Your task to perform on an android device: What's on my calendar tomorrow? Image 0: 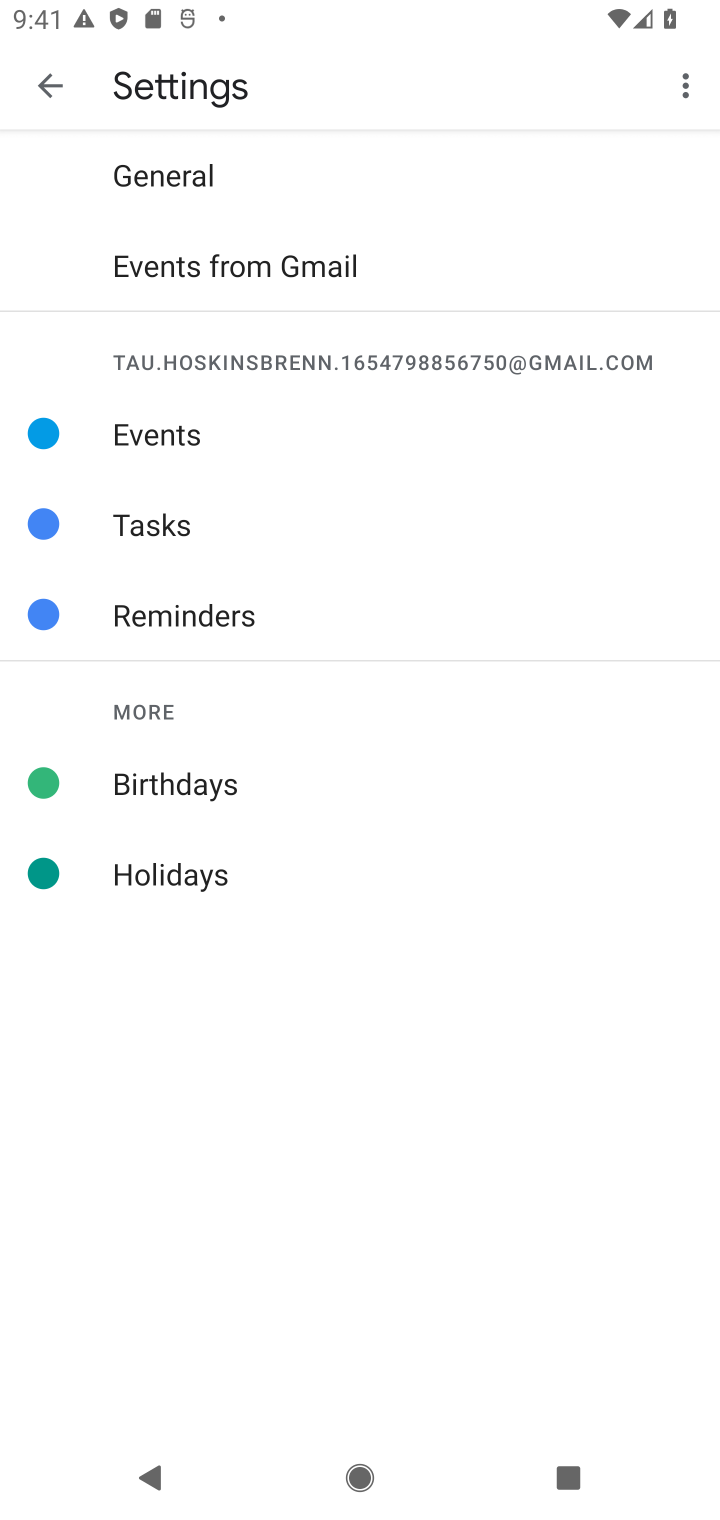
Step 0: drag from (470, 859) to (618, 499)
Your task to perform on an android device: What's on my calendar tomorrow? Image 1: 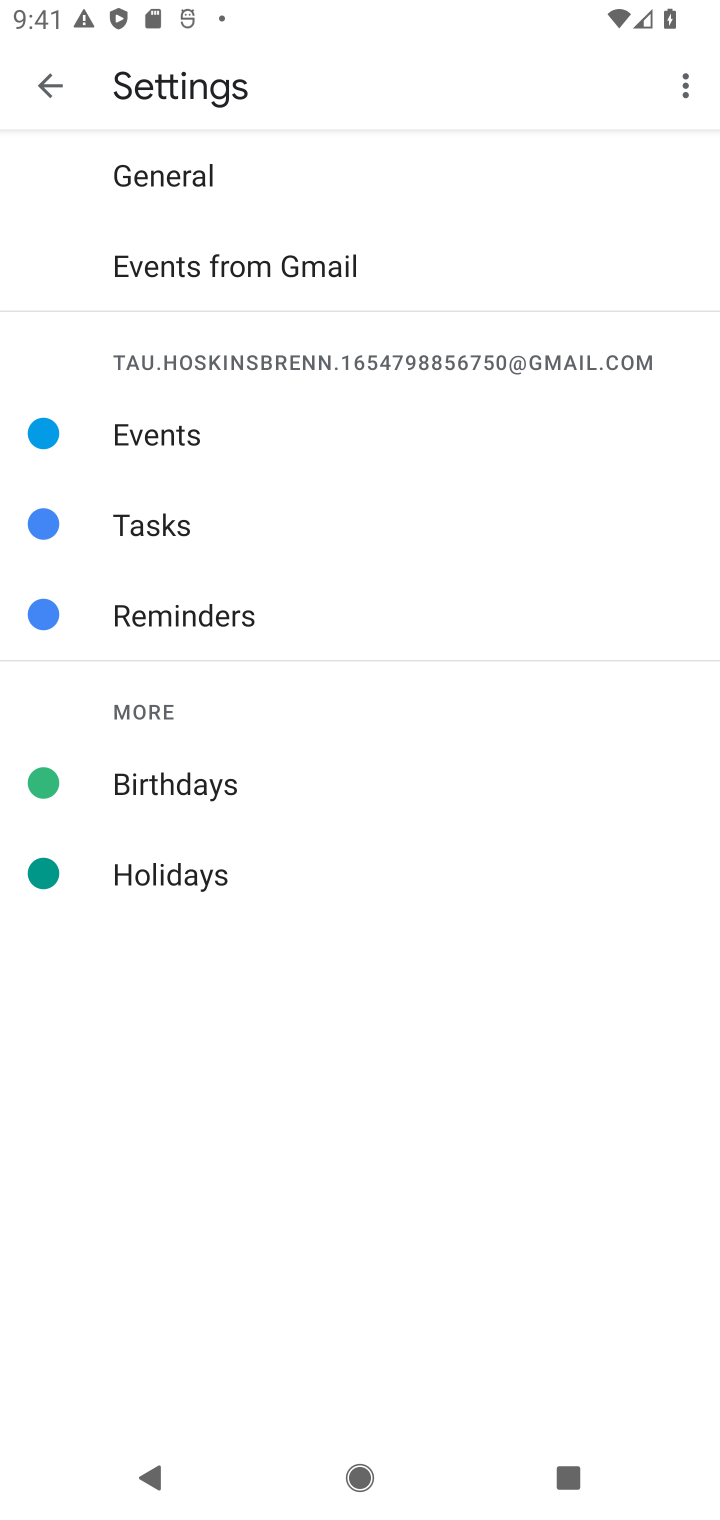
Step 1: press home button
Your task to perform on an android device: What's on my calendar tomorrow? Image 2: 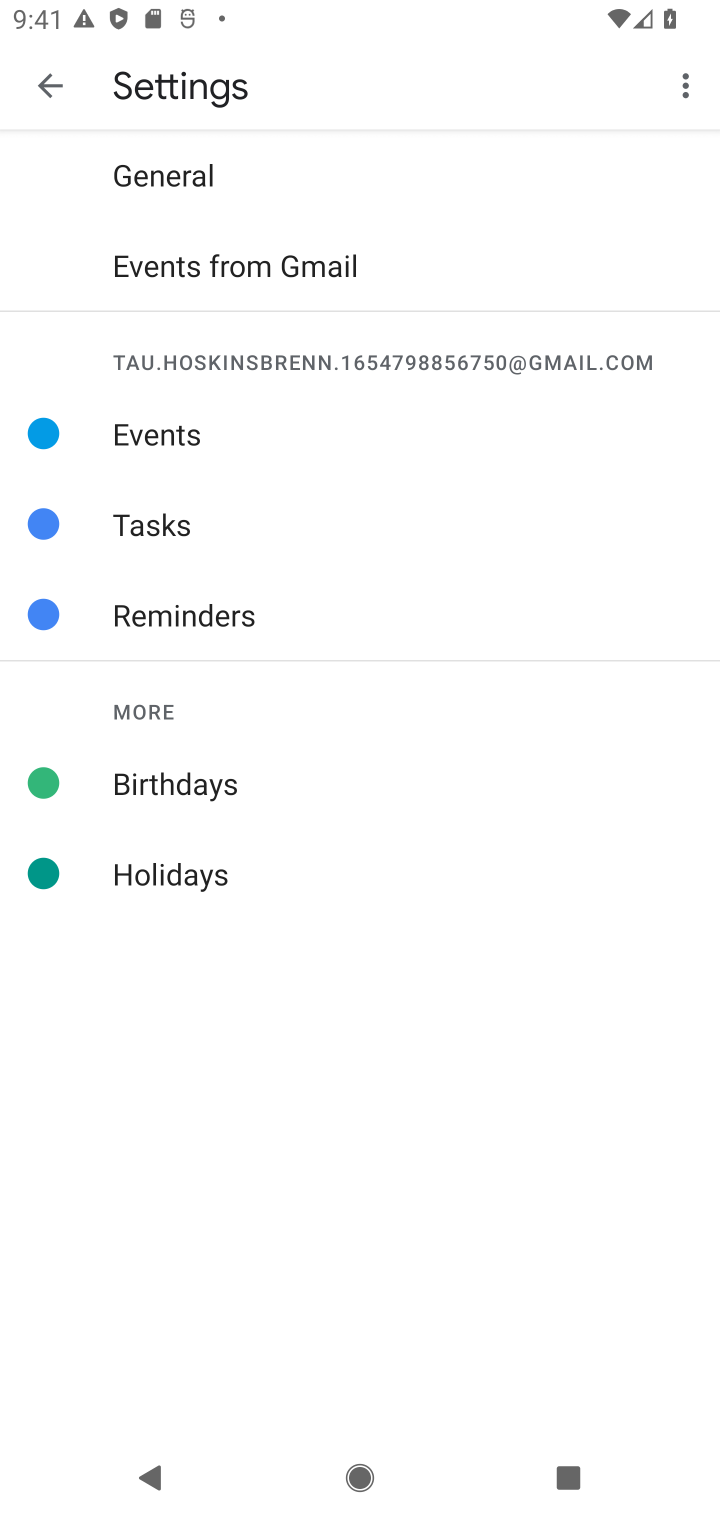
Step 2: press home button
Your task to perform on an android device: What's on my calendar tomorrow? Image 3: 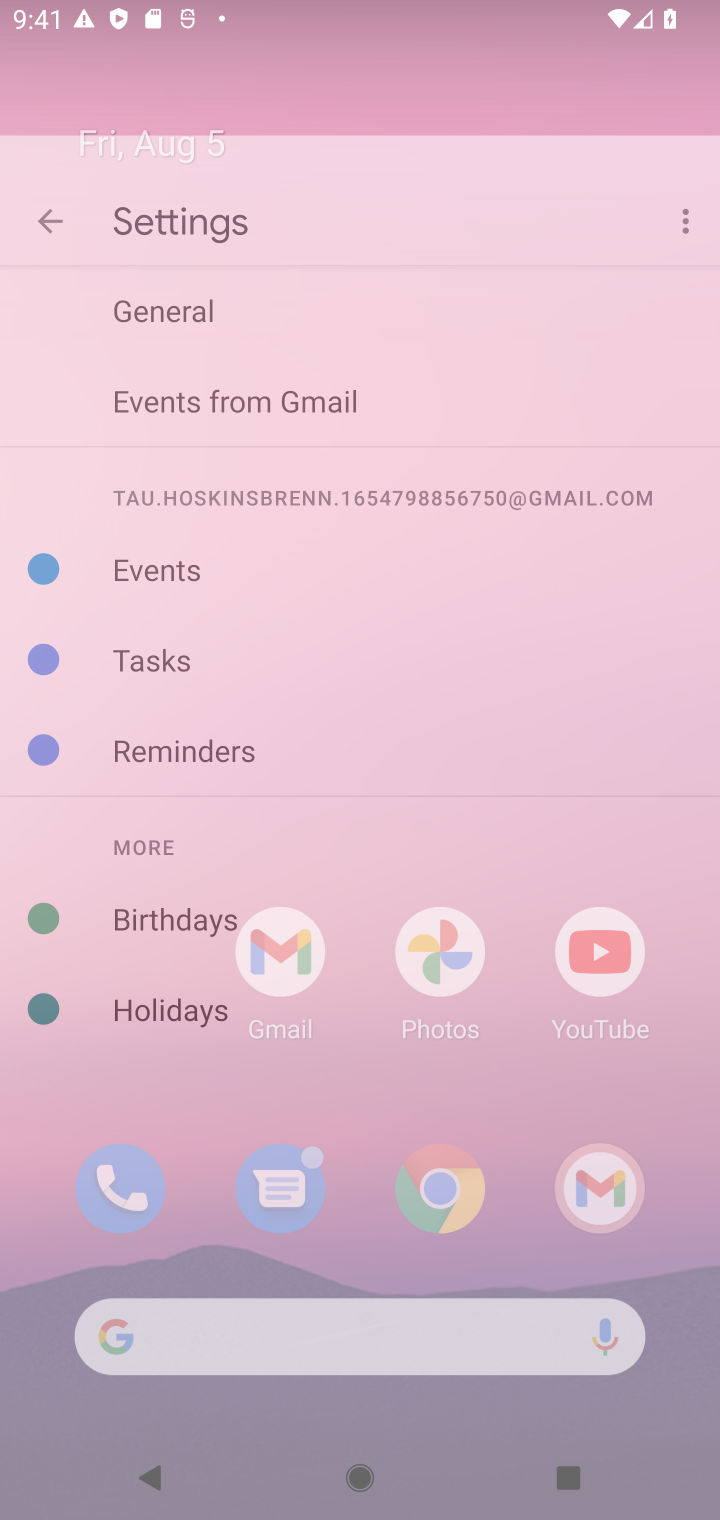
Step 3: drag from (421, 1304) to (526, 457)
Your task to perform on an android device: What's on my calendar tomorrow? Image 4: 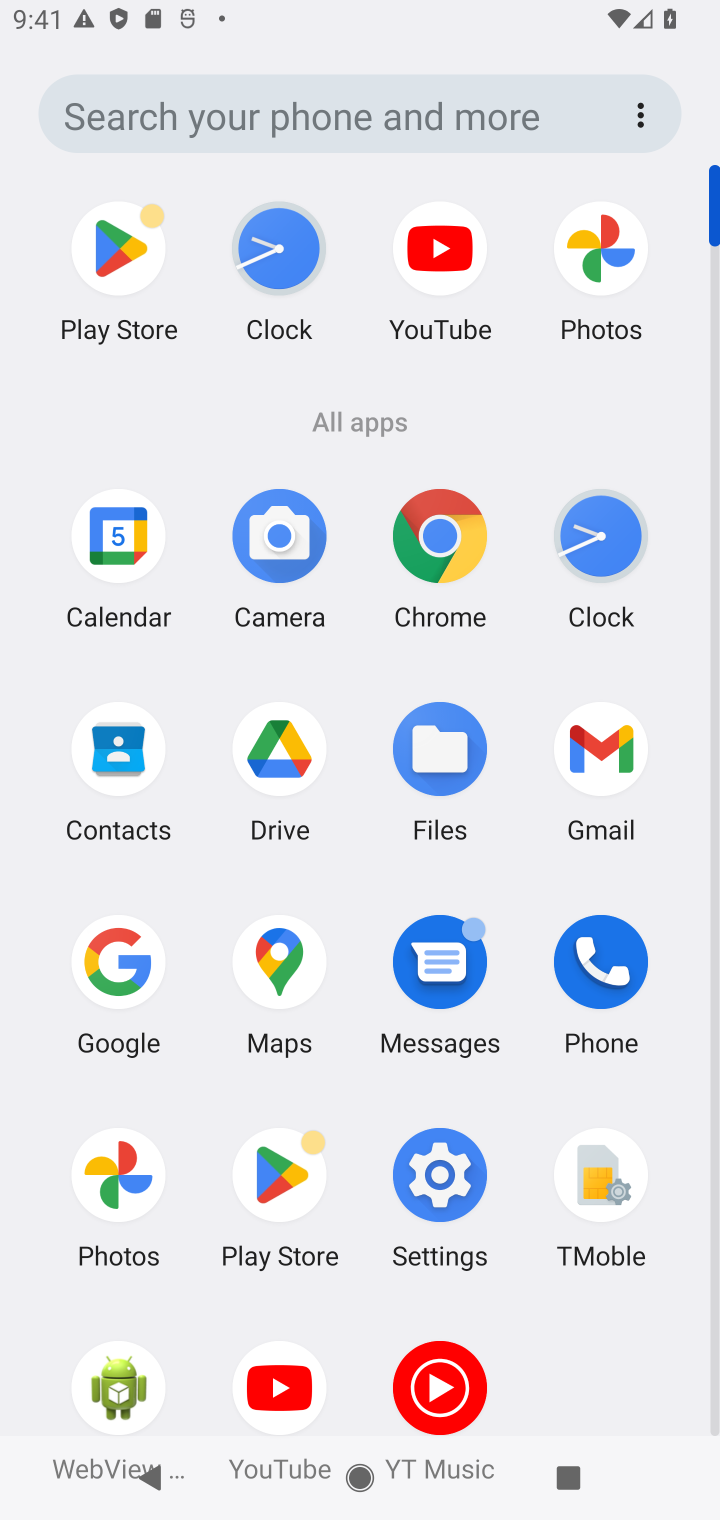
Step 4: click (105, 547)
Your task to perform on an android device: What's on my calendar tomorrow? Image 5: 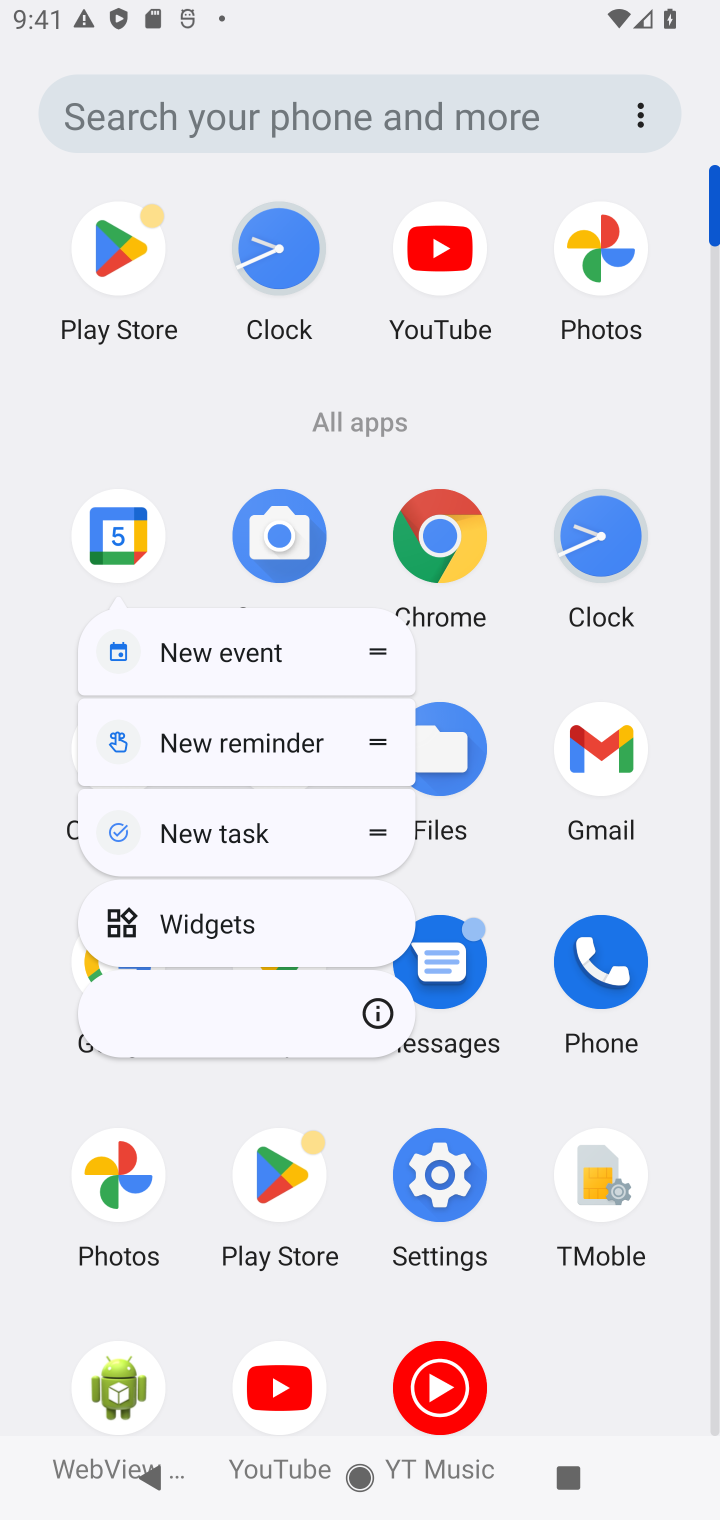
Step 5: click (370, 1012)
Your task to perform on an android device: What's on my calendar tomorrow? Image 6: 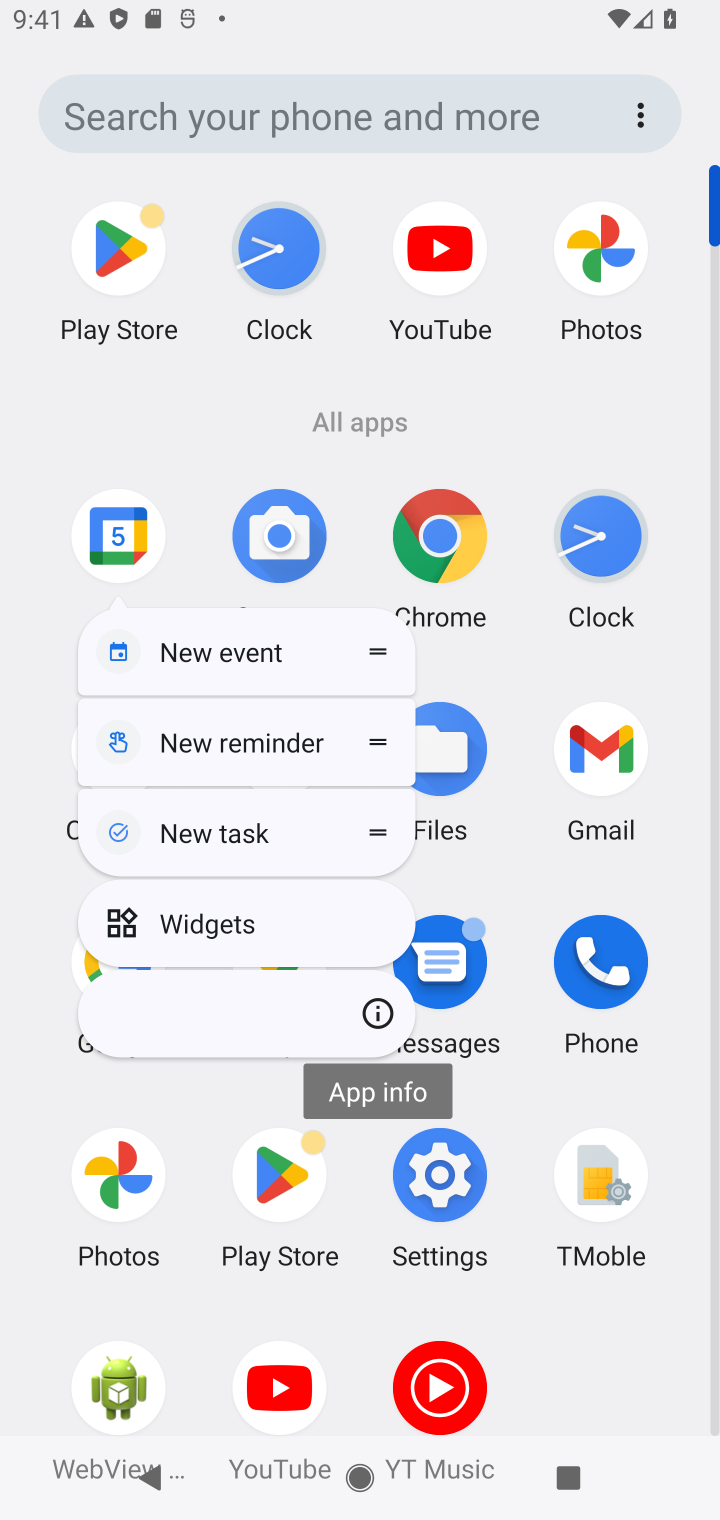
Step 6: click (370, 1012)
Your task to perform on an android device: What's on my calendar tomorrow? Image 7: 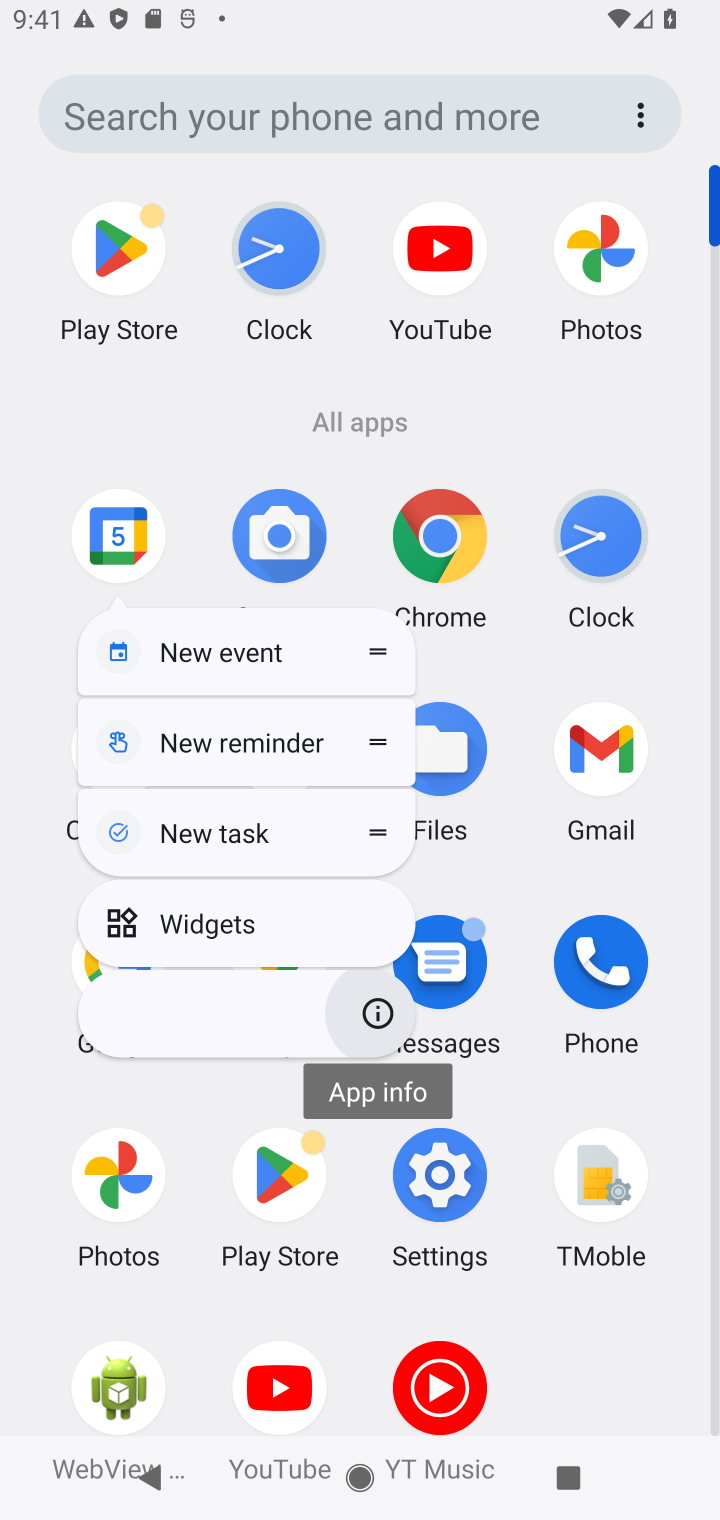
Step 7: click (370, 1012)
Your task to perform on an android device: What's on my calendar tomorrow? Image 8: 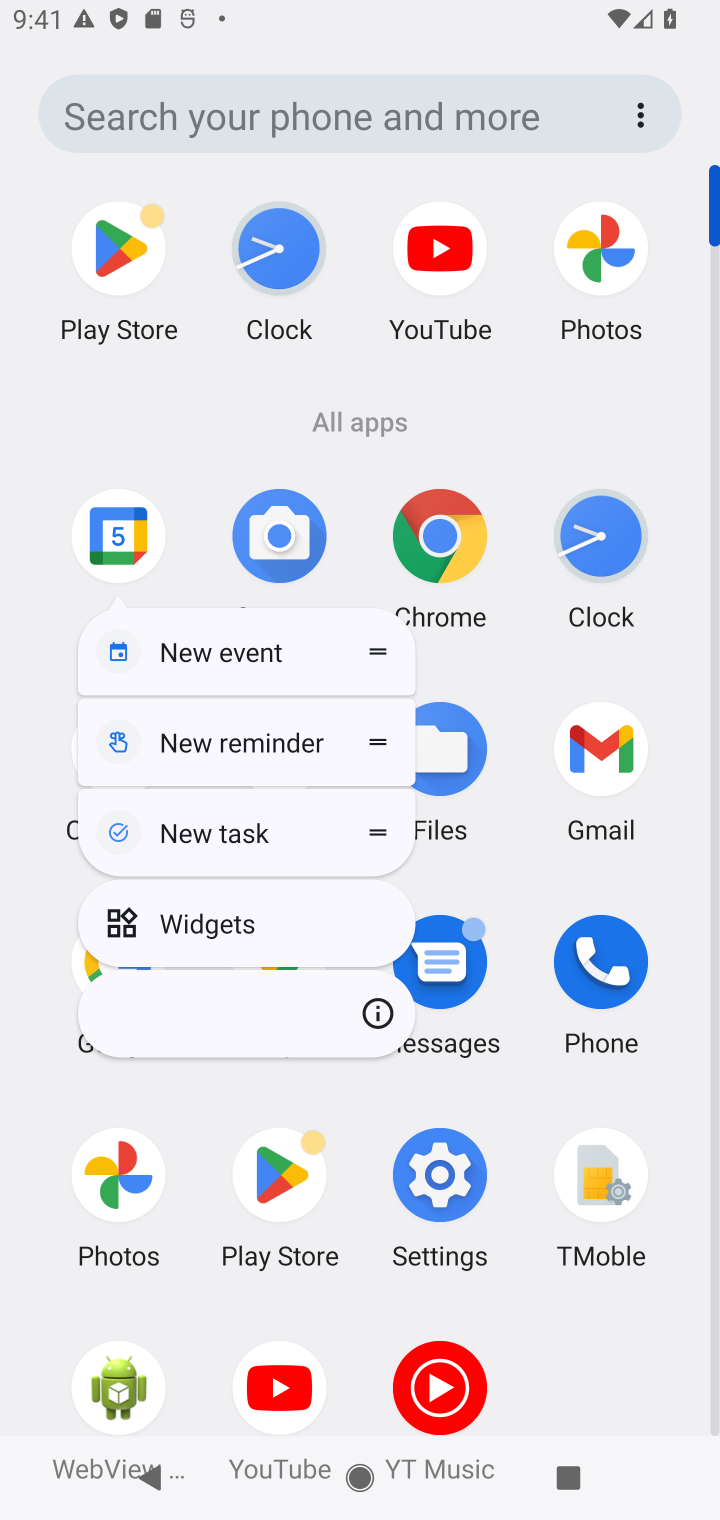
Step 8: click (373, 996)
Your task to perform on an android device: What's on my calendar tomorrow? Image 9: 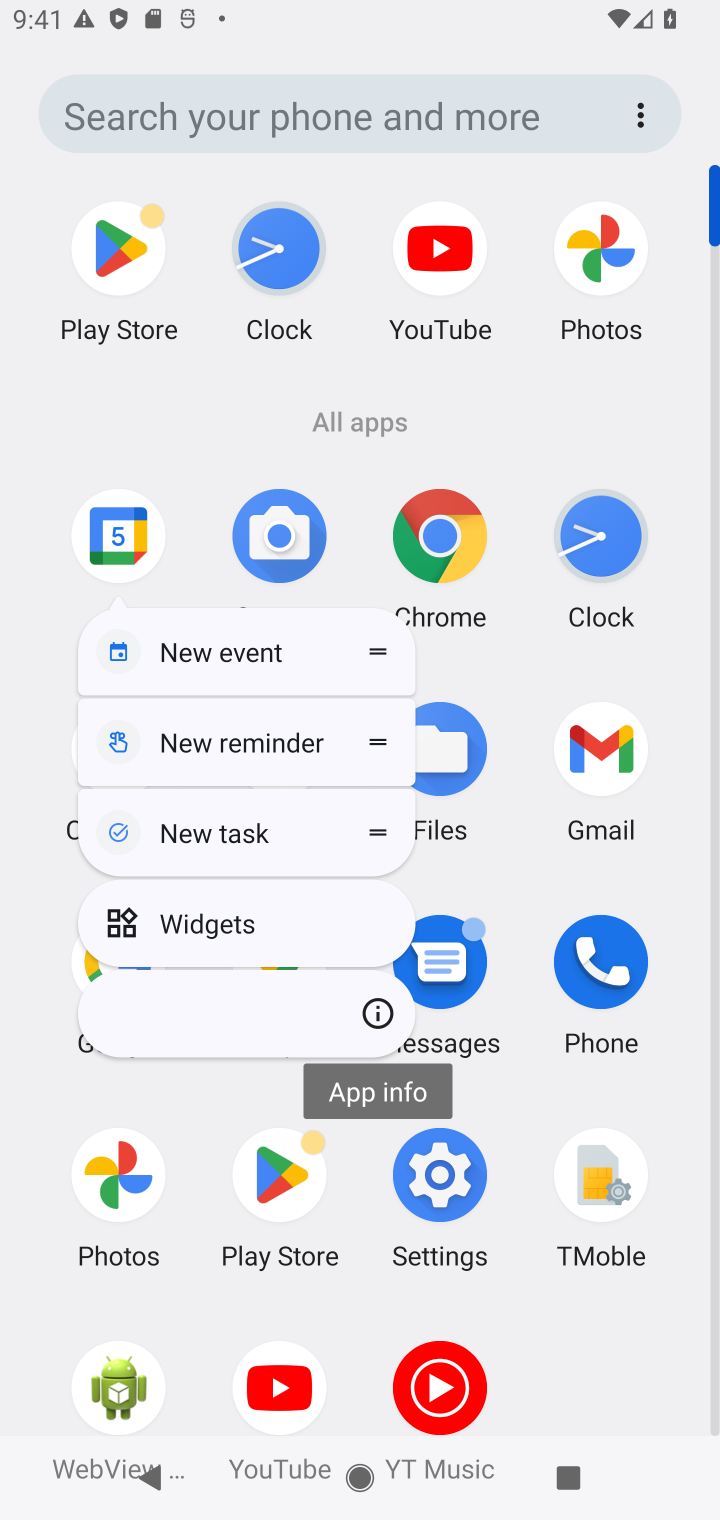
Step 9: click (373, 998)
Your task to perform on an android device: What's on my calendar tomorrow? Image 10: 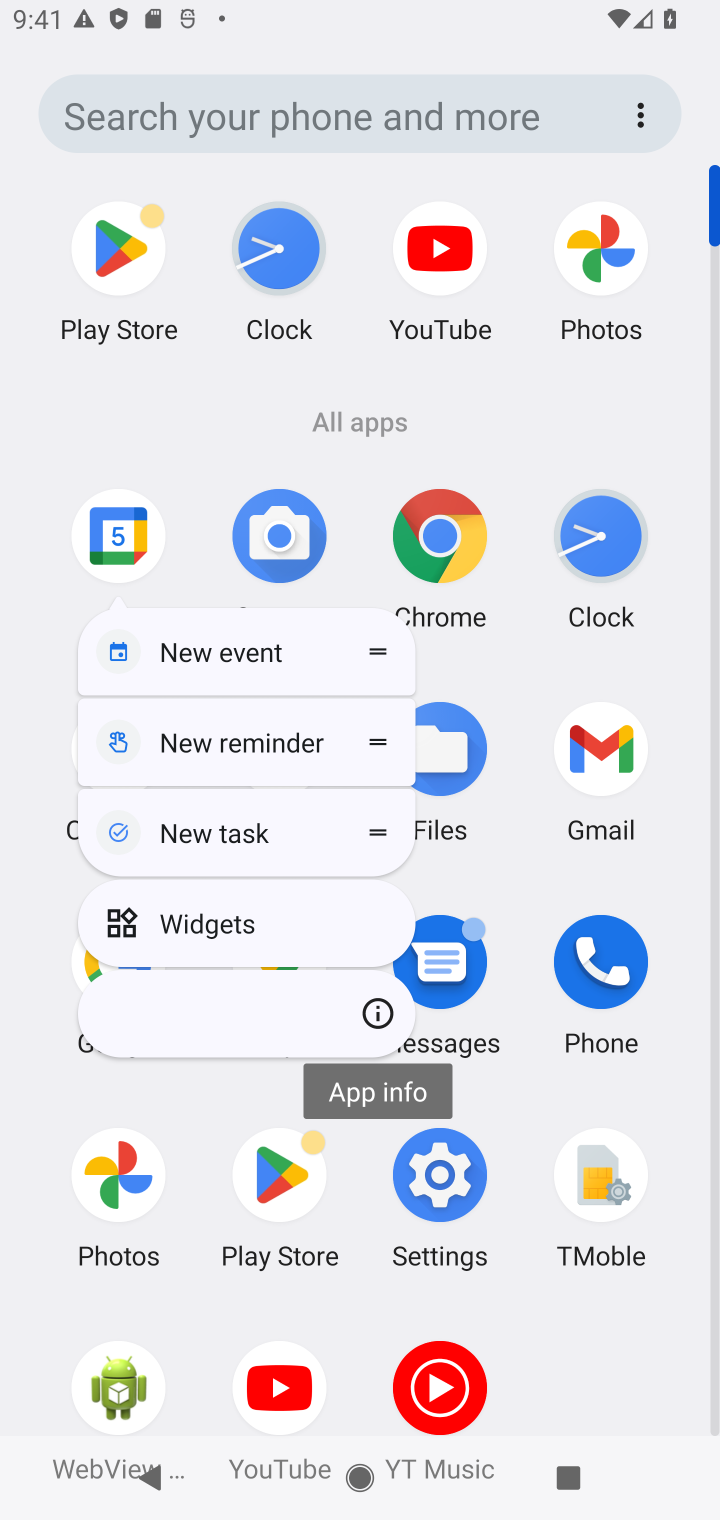
Step 10: click (373, 998)
Your task to perform on an android device: What's on my calendar tomorrow? Image 11: 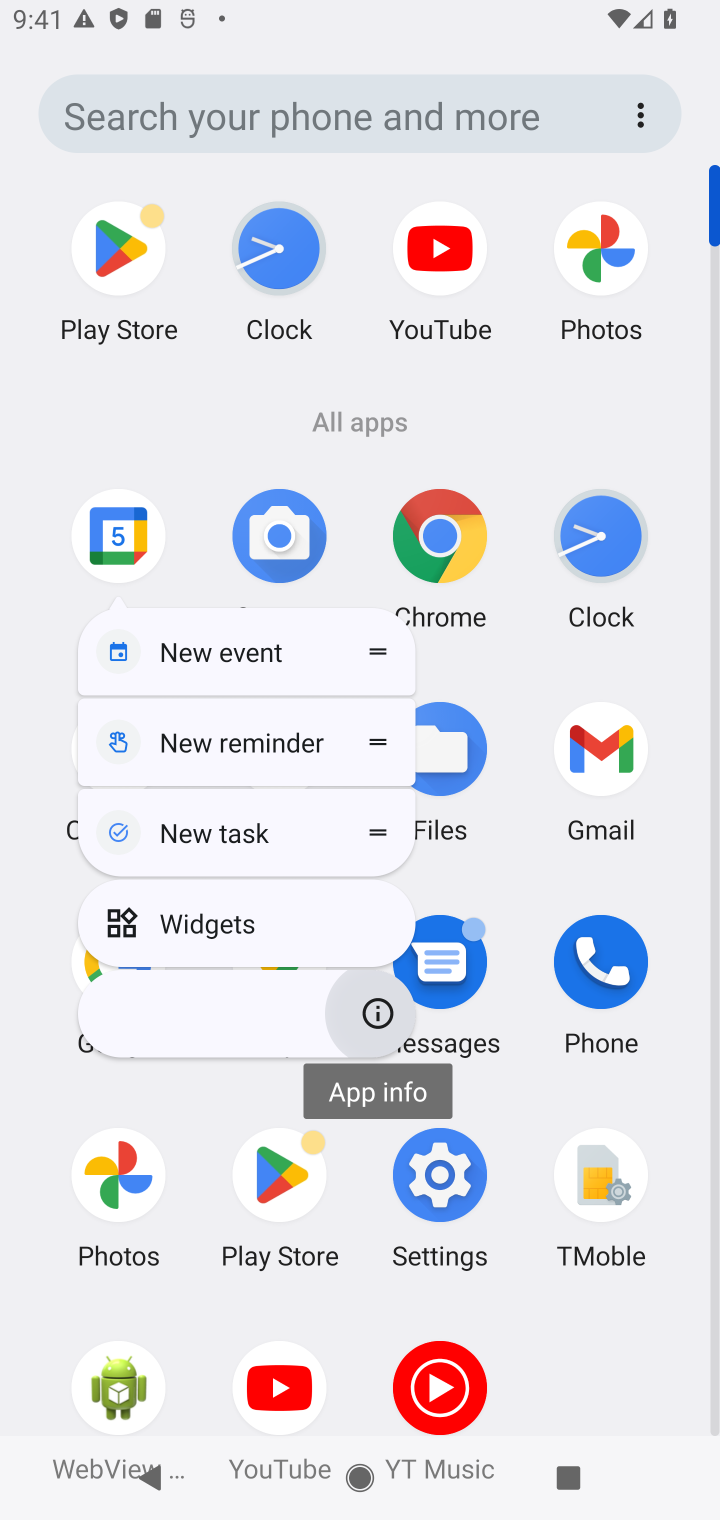
Step 11: click (112, 539)
Your task to perform on an android device: What's on my calendar tomorrow? Image 12: 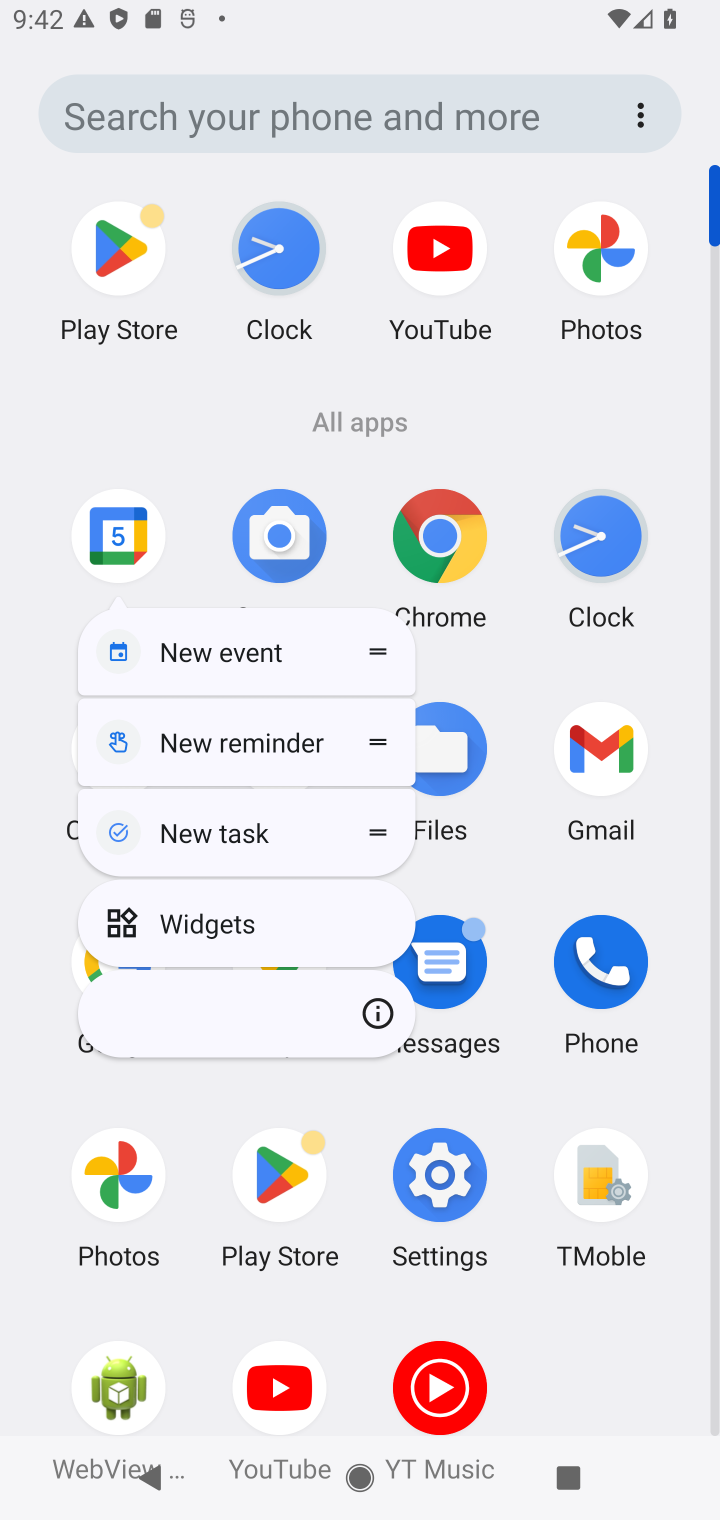
Step 12: click (112, 539)
Your task to perform on an android device: What's on my calendar tomorrow? Image 13: 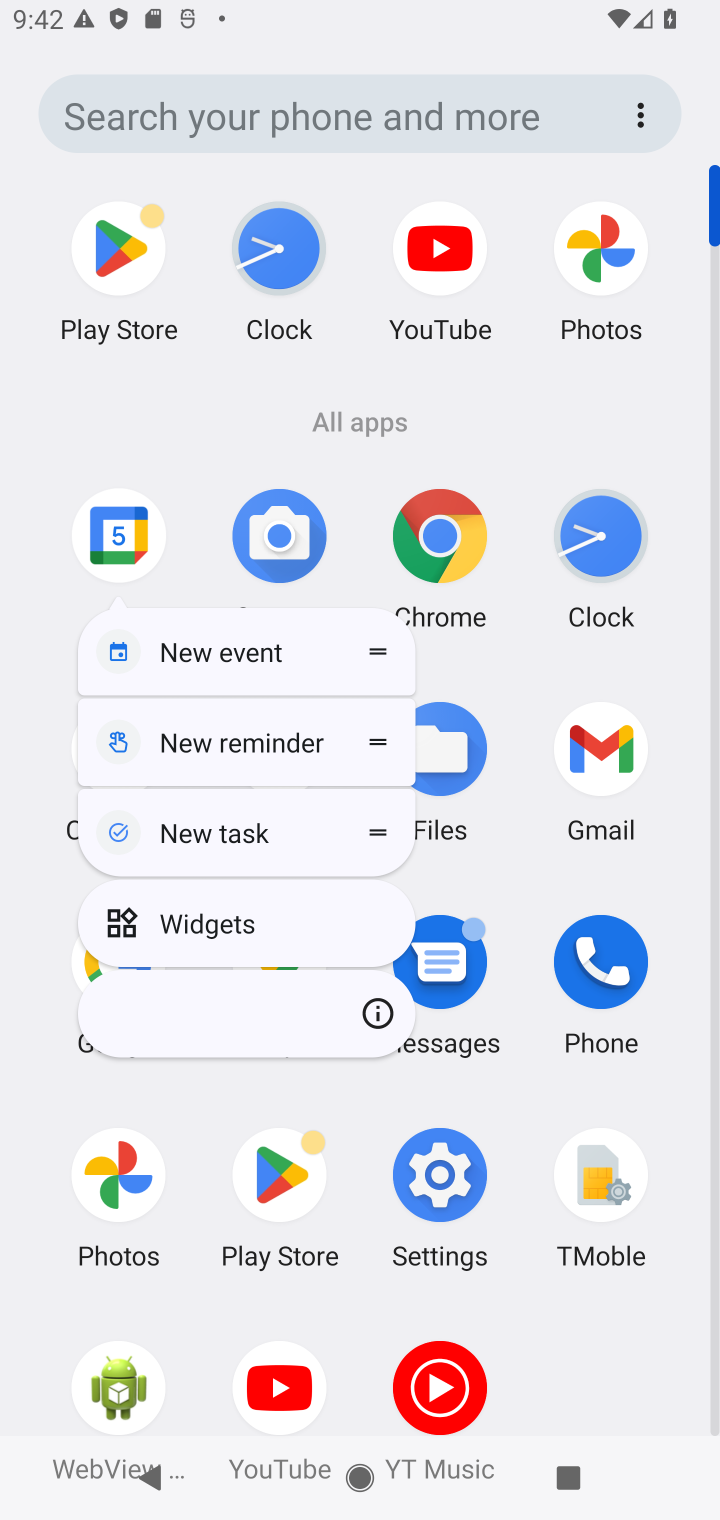
Step 13: click (125, 529)
Your task to perform on an android device: What's on my calendar tomorrow? Image 14: 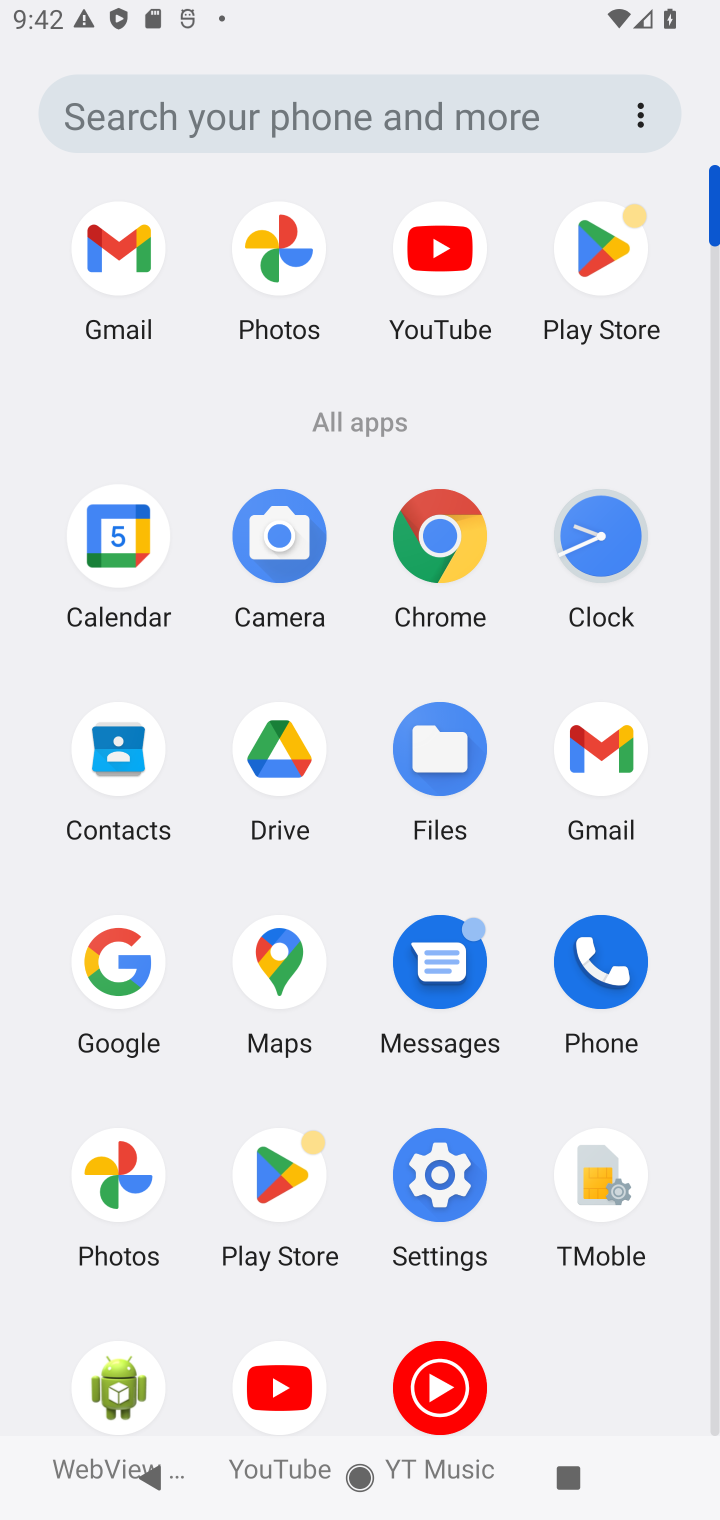
Step 14: click (125, 529)
Your task to perform on an android device: What's on my calendar tomorrow? Image 15: 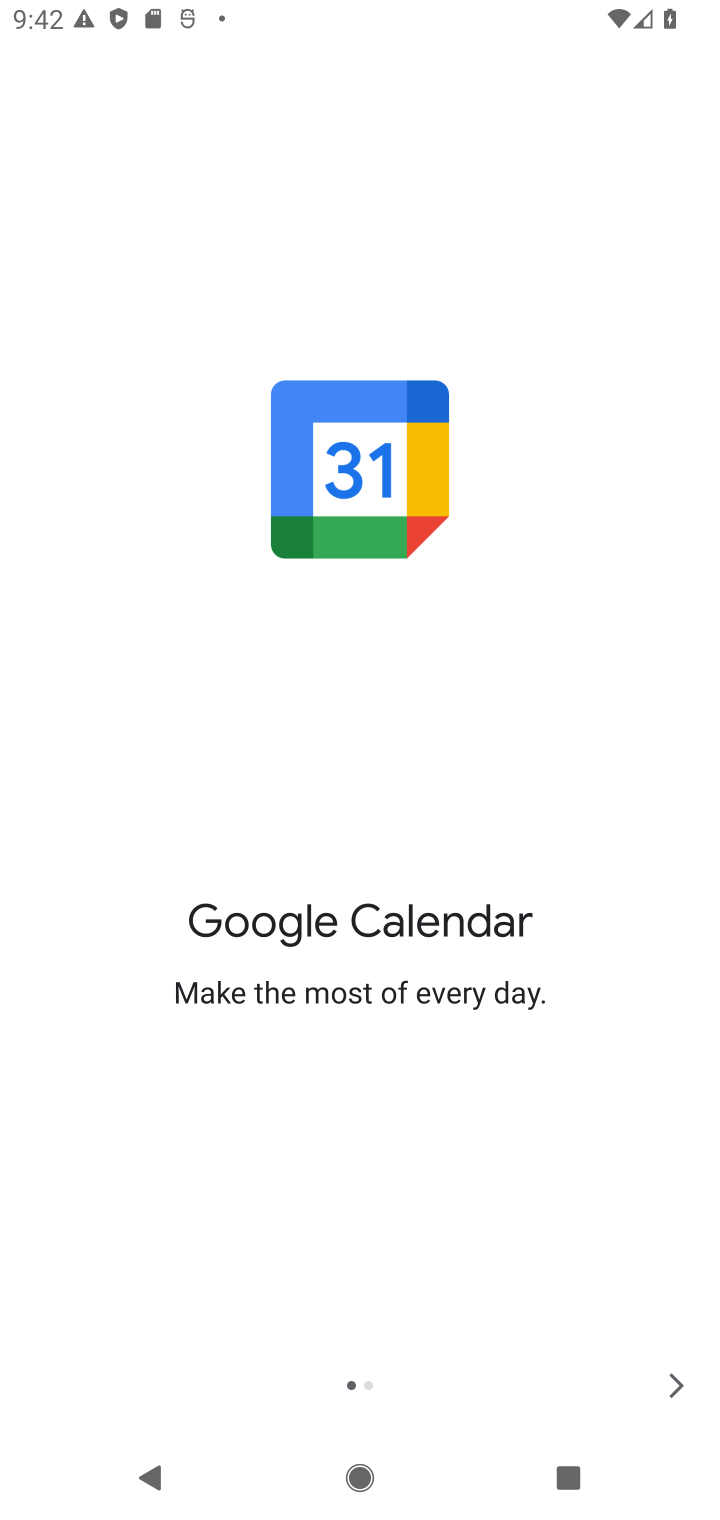
Step 15: drag from (229, 1161) to (407, 582)
Your task to perform on an android device: What's on my calendar tomorrow? Image 16: 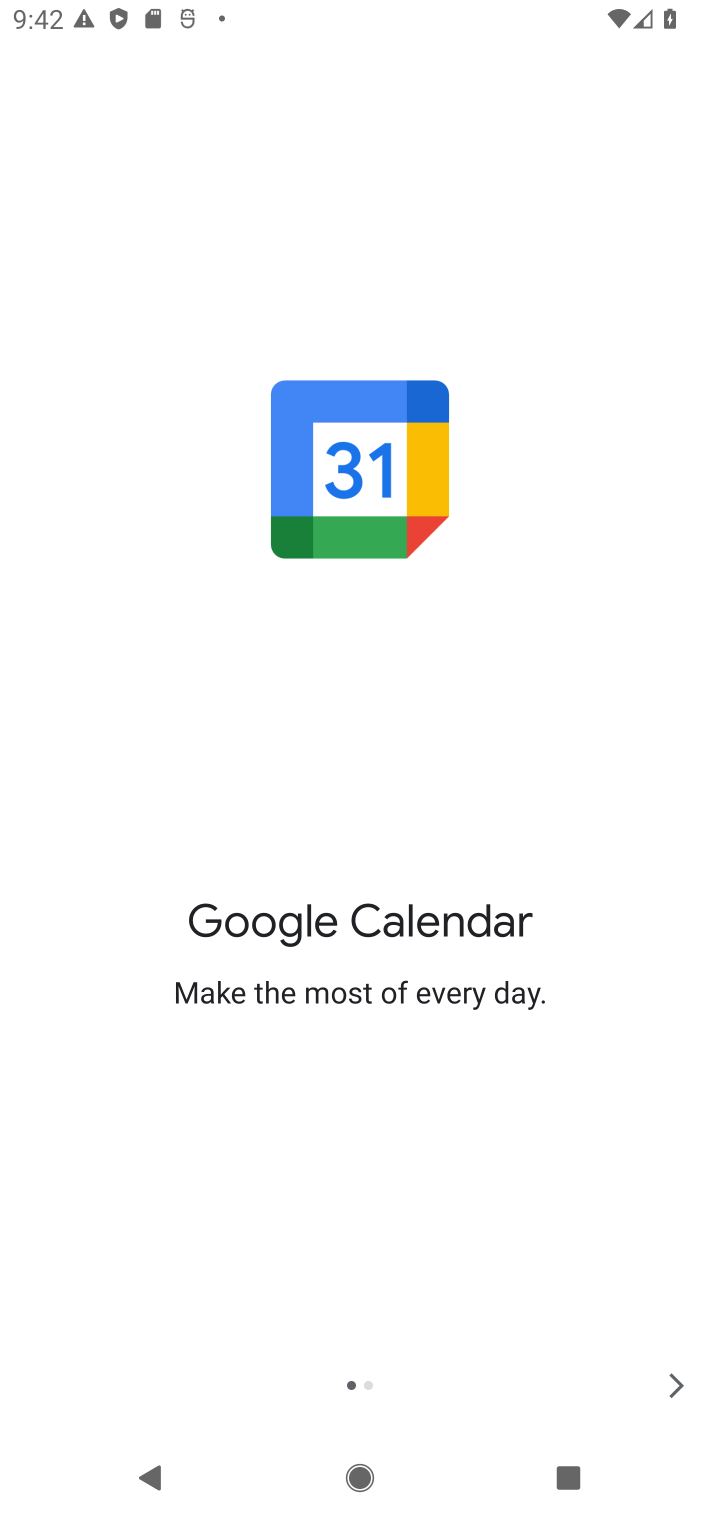
Step 16: click (681, 1389)
Your task to perform on an android device: What's on my calendar tomorrow? Image 17: 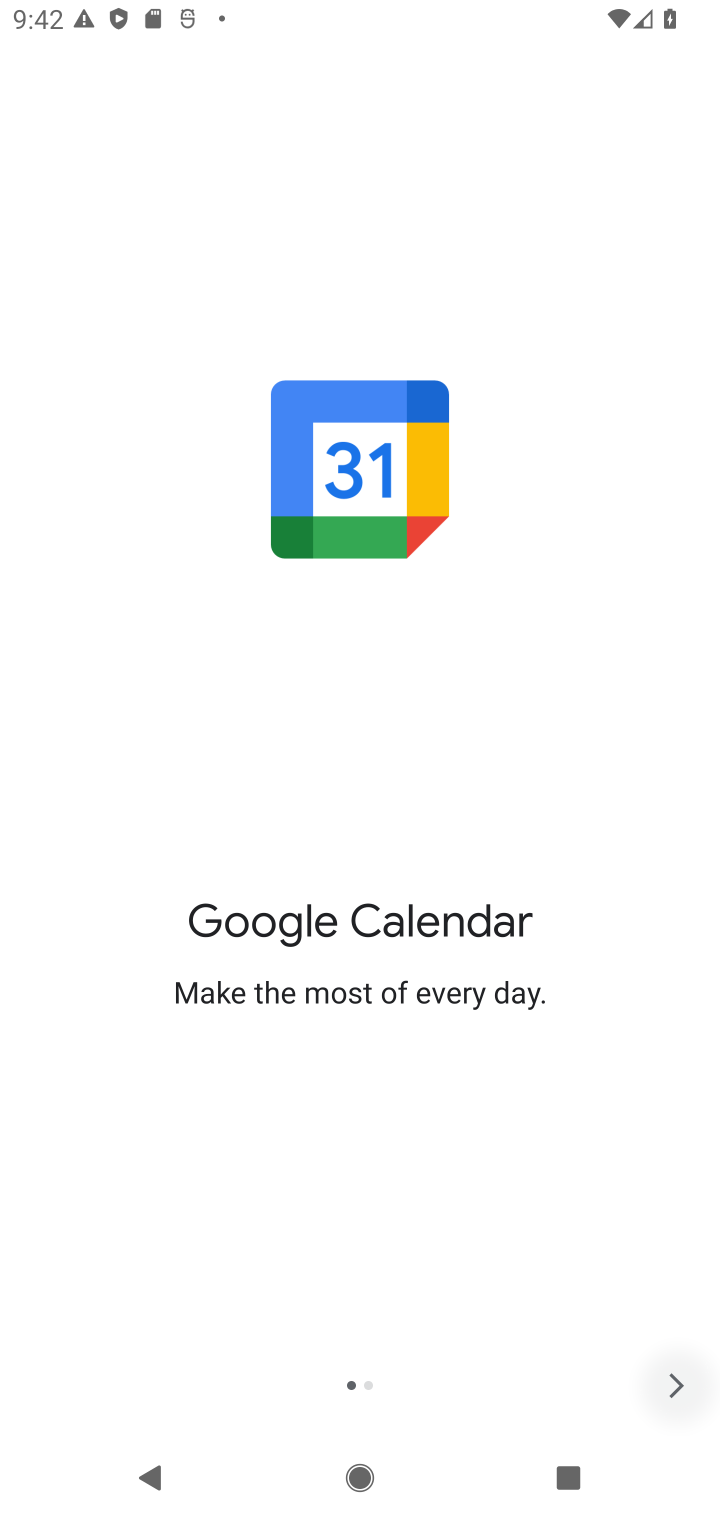
Step 17: click (681, 1389)
Your task to perform on an android device: What's on my calendar tomorrow? Image 18: 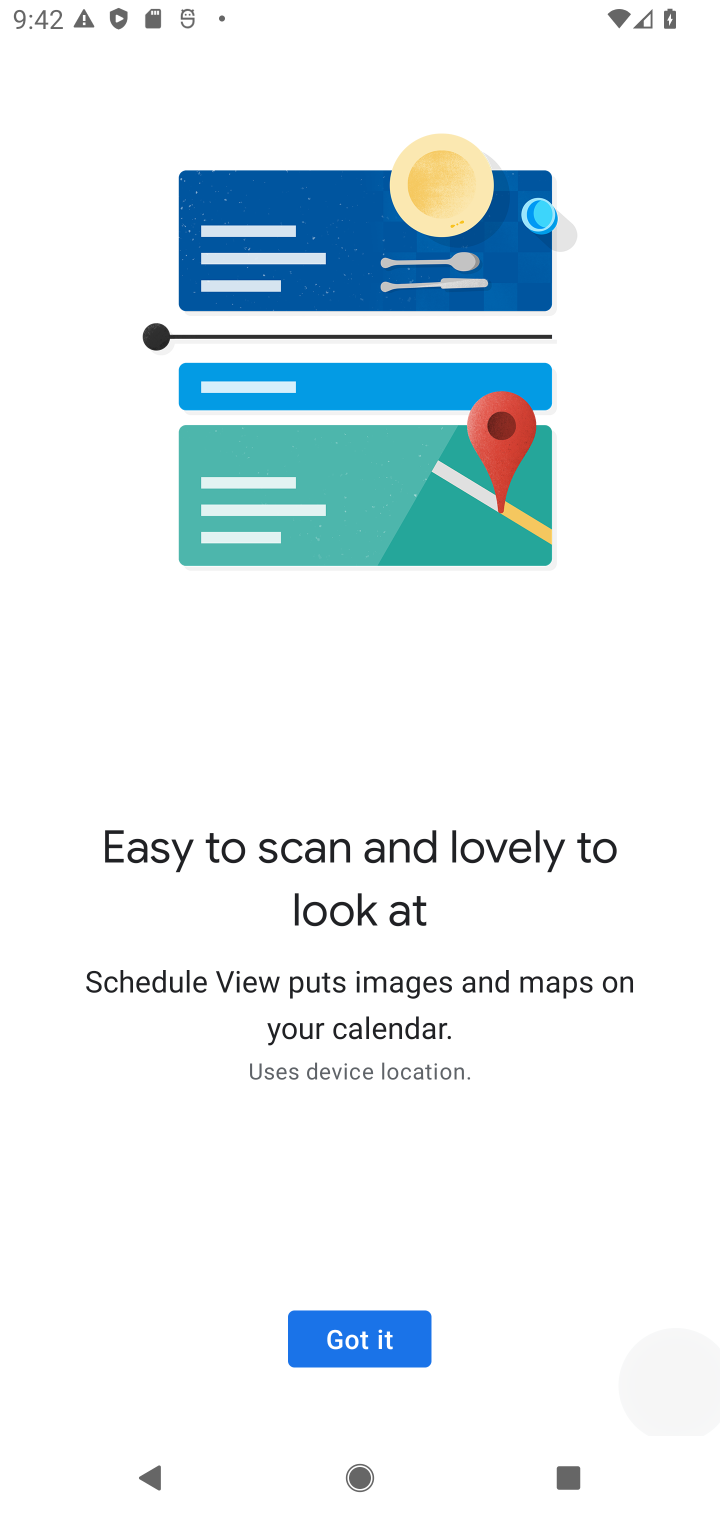
Step 18: click (681, 1389)
Your task to perform on an android device: What's on my calendar tomorrow? Image 19: 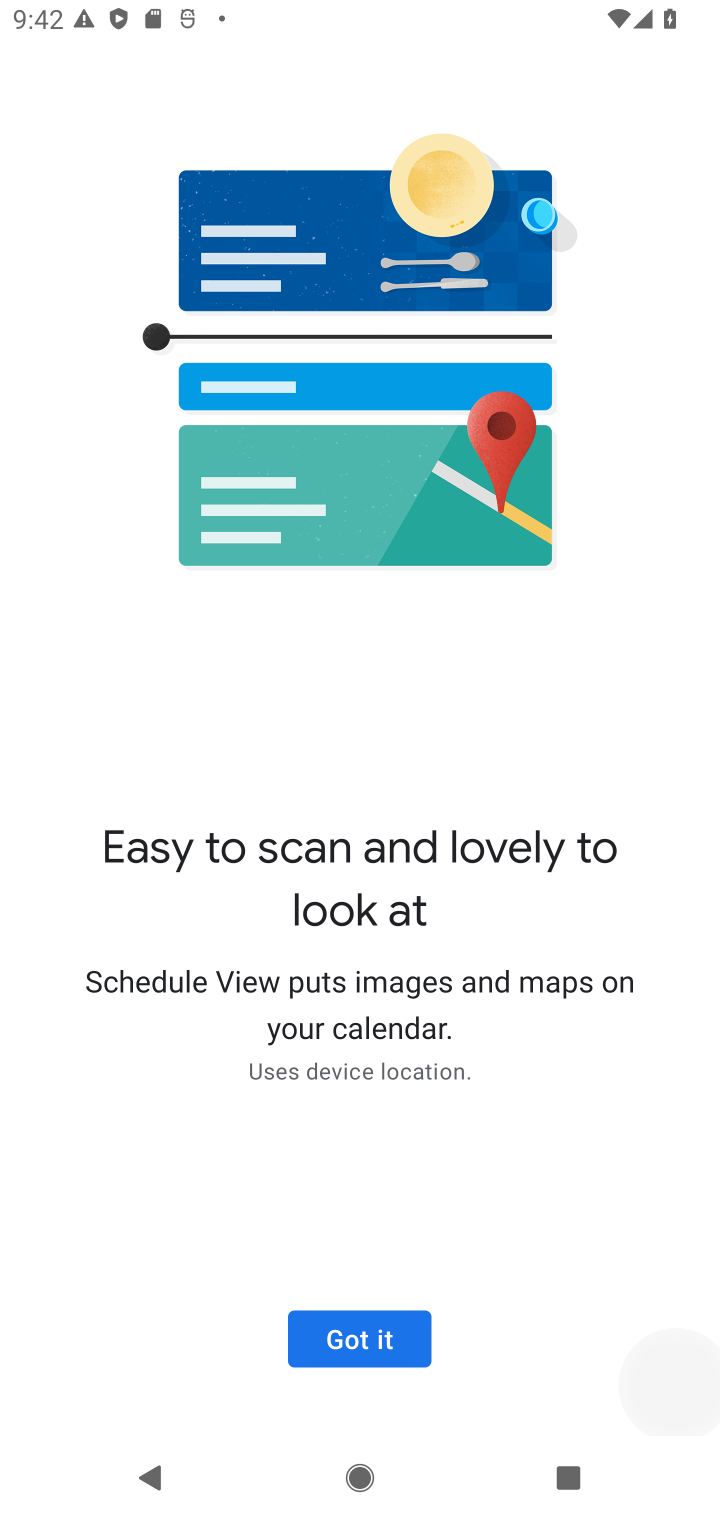
Step 19: click (386, 1346)
Your task to perform on an android device: What's on my calendar tomorrow? Image 20: 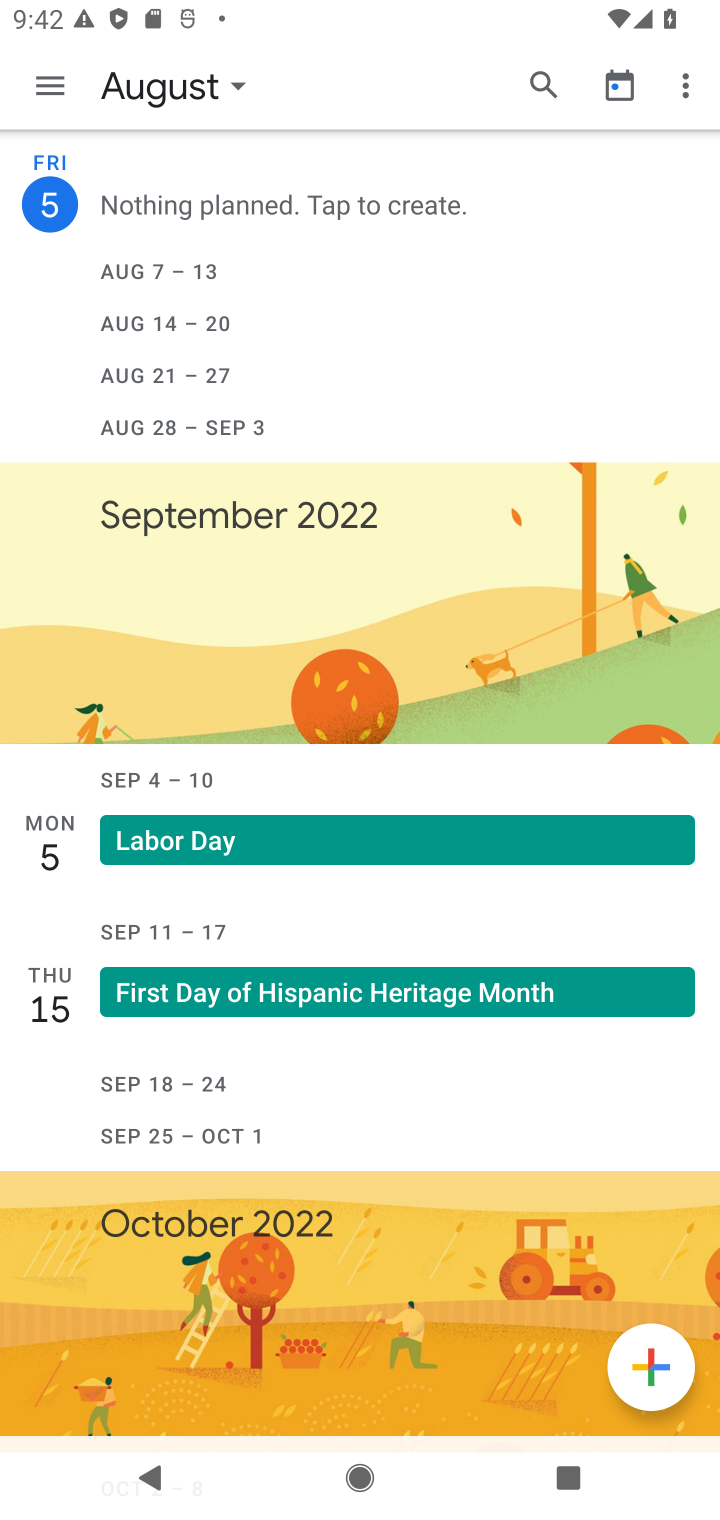
Step 20: click (611, 93)
Your task to perform on an android device: What's on my calendar tomorrow? Image 21: 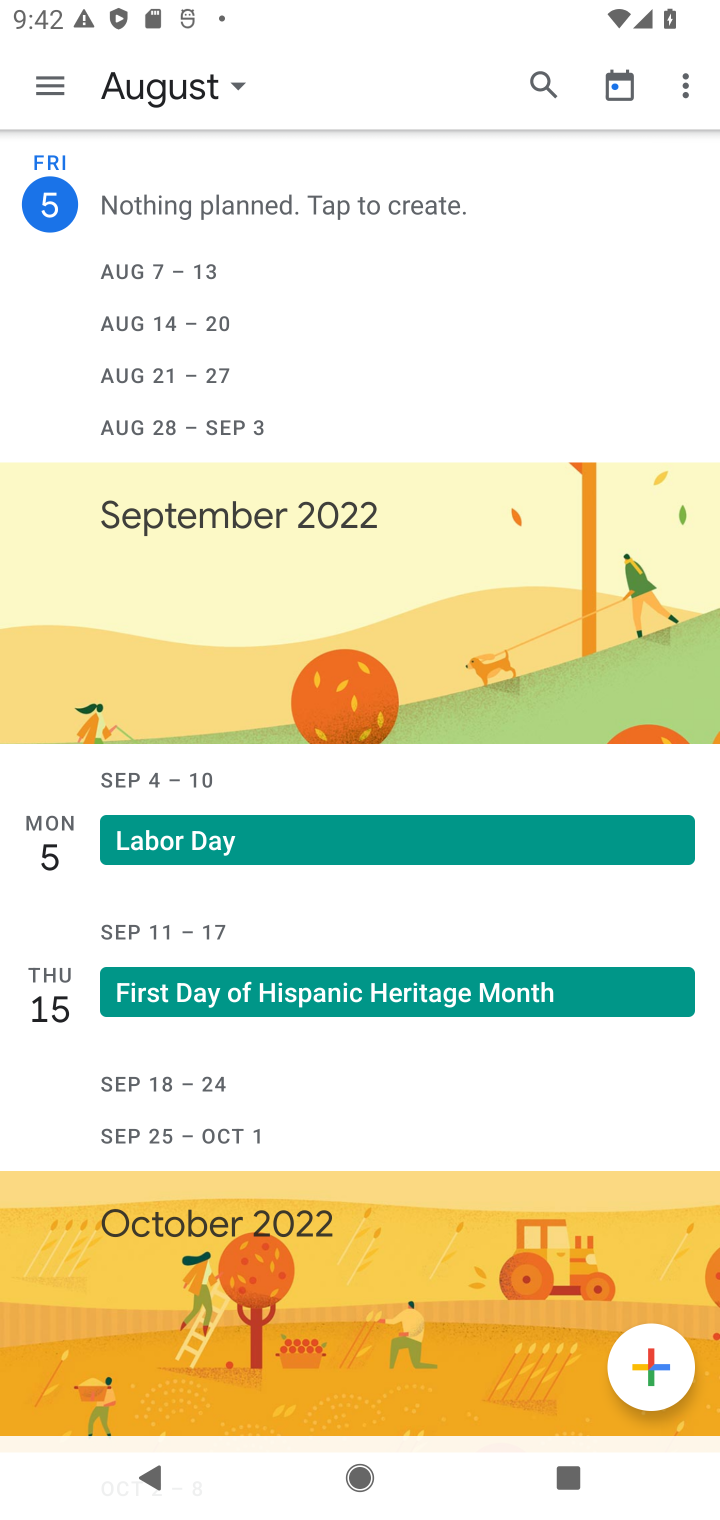
Step 21: click (617, 95)
Your task to perform on an android device: What's on my calendar tomorrow? Image 22: 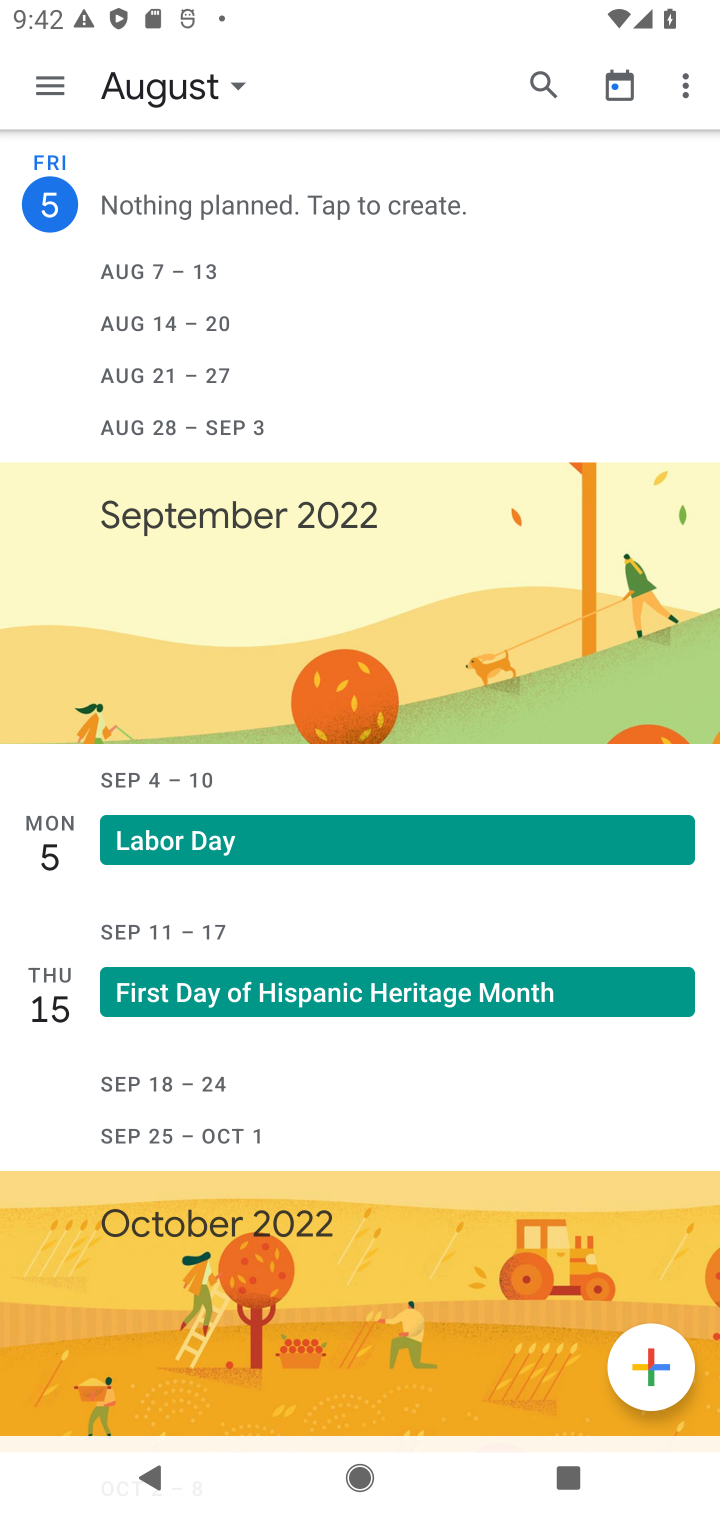
Step 22: click (183, 67)
Your task to perform on an android device: What's on my calendar tomorrow? Image 23: 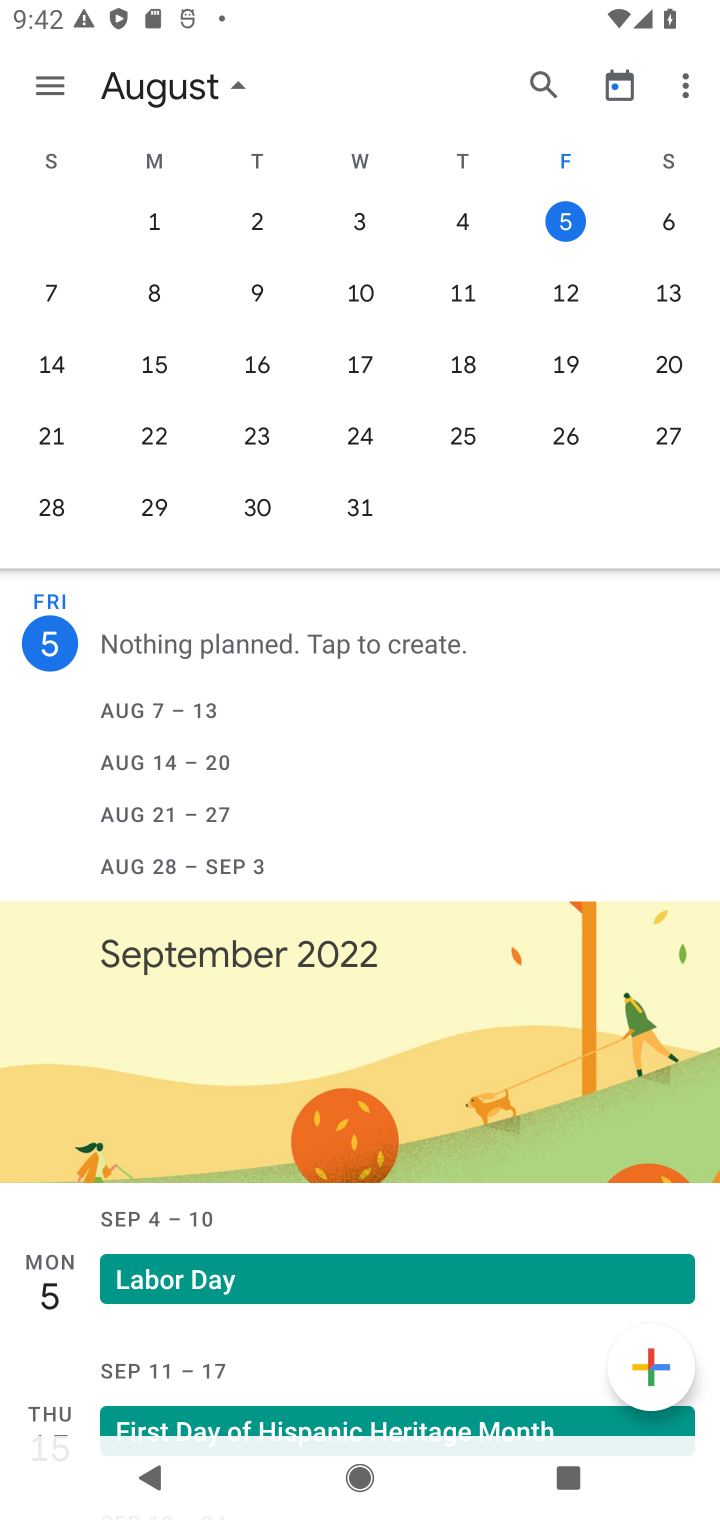
Step 23: click (570, 232)
Your task to perform on an android device: What's on my calendar tomorrow? Image 24: 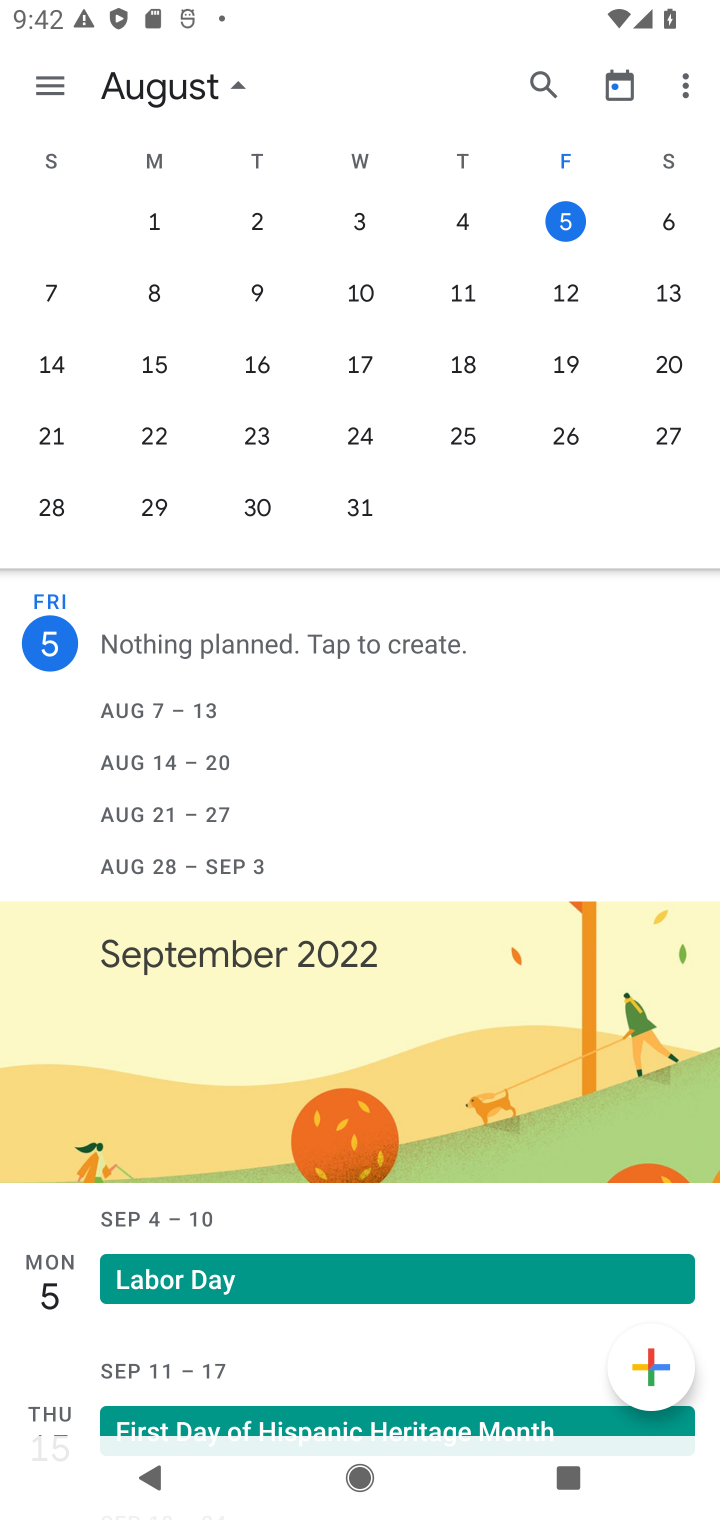
Step 24: click (570, 232)
Your task to perform on an android device: What's on my calendar tomorrow? Image 25: 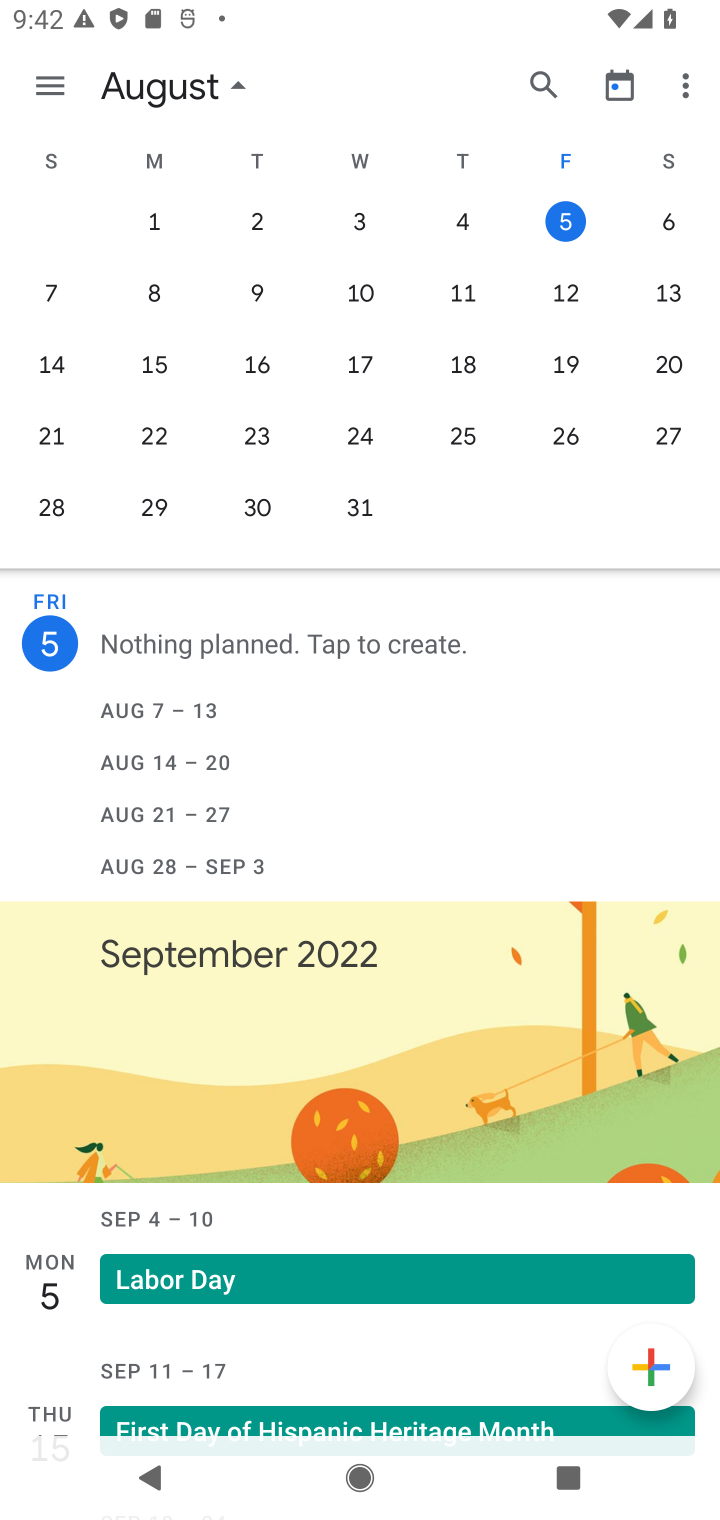
Step 25: click (672, 211)
Your task to perform on an android device: What's on my calendar tomorrow? Image 26: 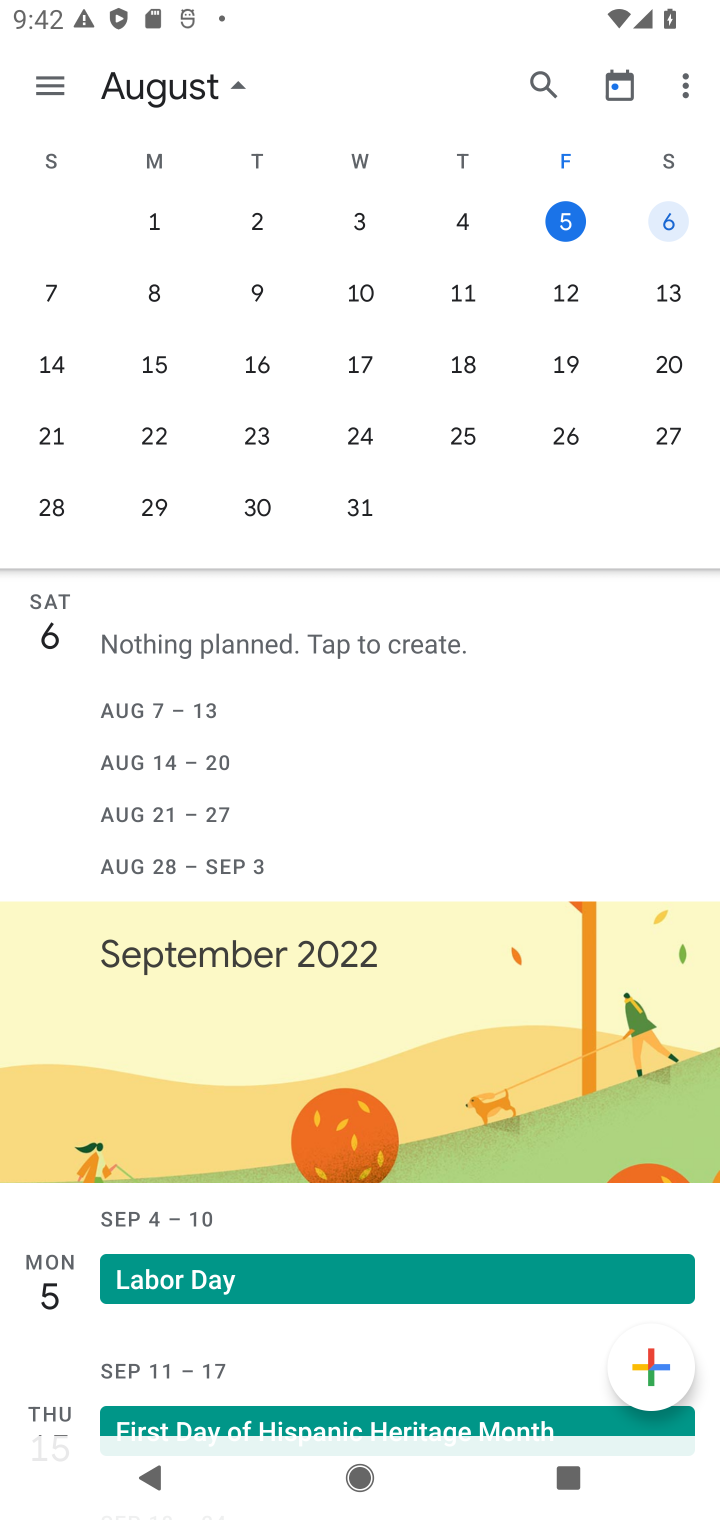
Step 26: task complete